Your task to perform on an android device: find photos in the google photos app Image 0: 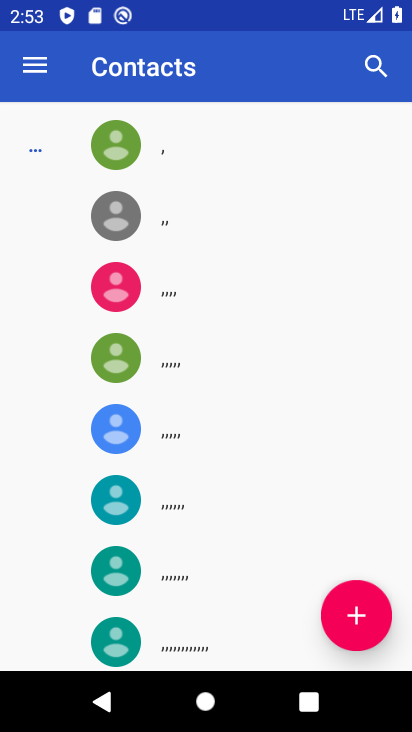
Step 0: press home button
Your task to perform on an android device: find photos in the google photos app Image 1: 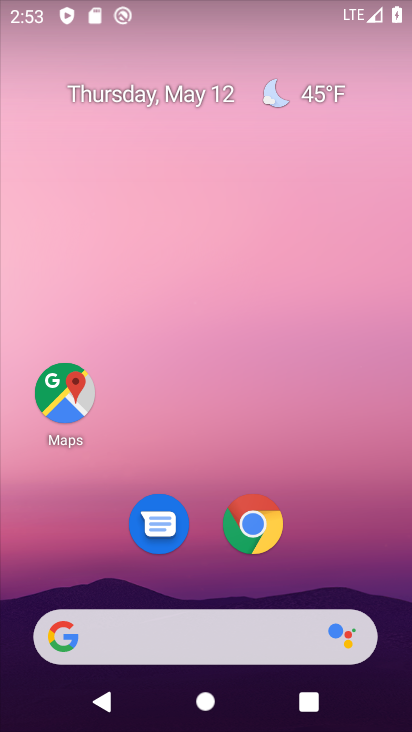
Step 1: drag from (198, 472) to (214, 29)
Your task to perform on an android device: find photos in the google photos app Image 2: 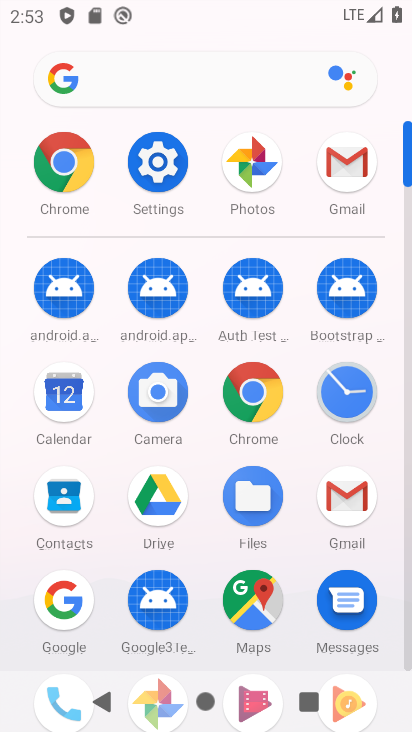
Step 2: click (251, 150)
Your task to perform on an android device: find photos in the google photos app Image 3: 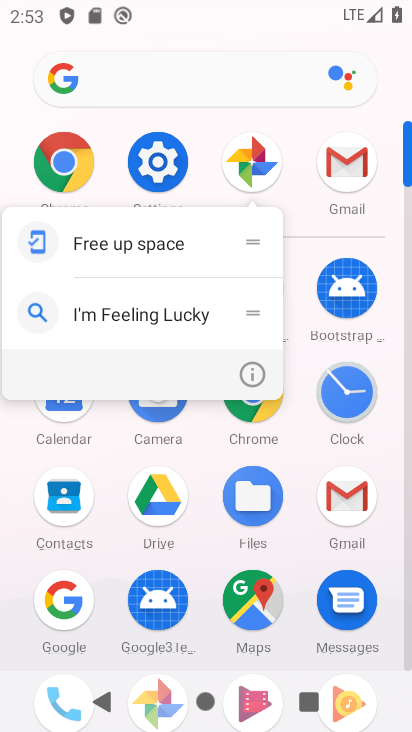
Step 3: click (251, 150)
Your task to perform on an android device: find photos in the google photos app Image 4: 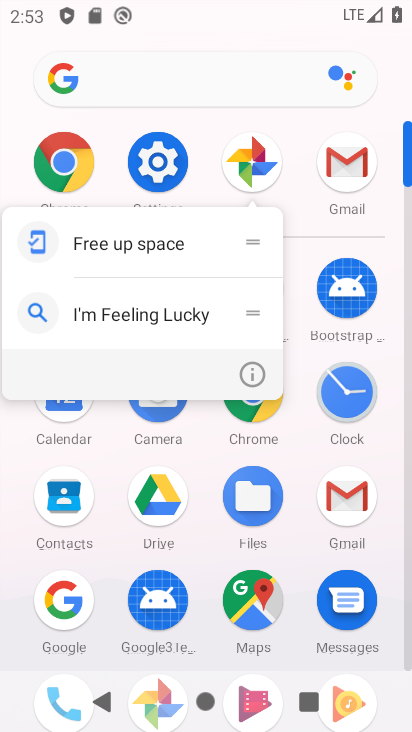
Step 4: click (251, 148)
Your task to perform on an android device: find photos in the google photos app Image 5: 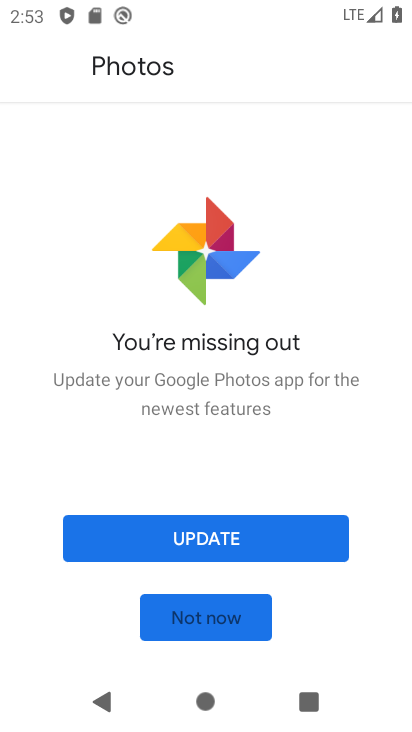
Step 5: click (212, 528)
Your task to perform on an android device: find photos in the google photos app Image 6: 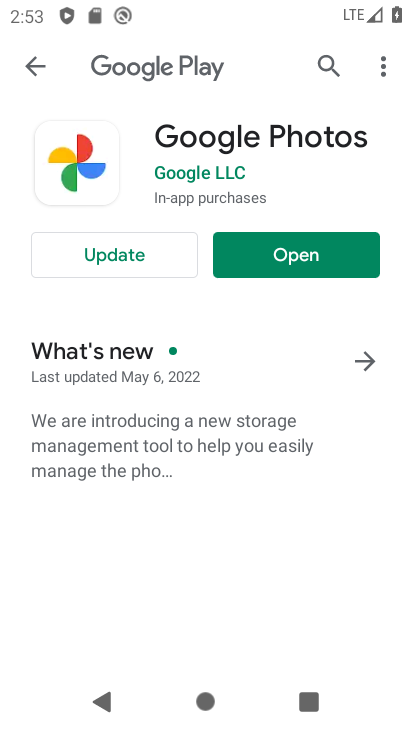
Step 6: click (266, 250)
Your task to perform on an android device: find photos in the google photos app Image 7: 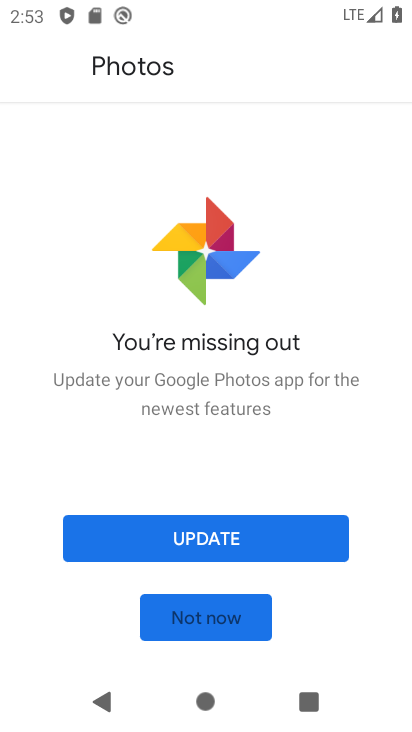
Step 7: click (249, 534)
Your task to perform on an android device: find photos in the google photos app Image 8: 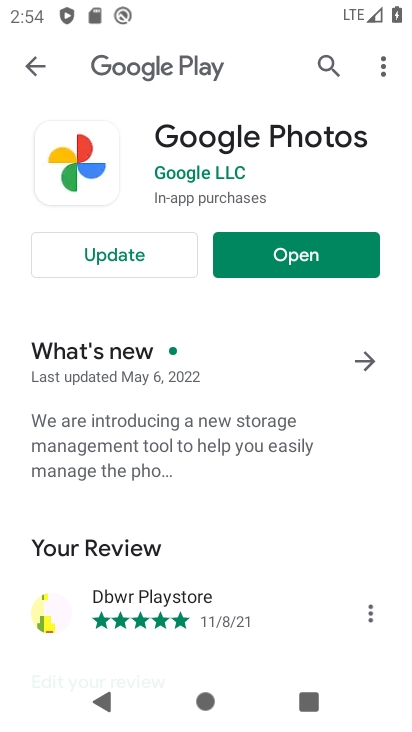
Step 8: click (237, 251)
Your task to perform on an android device: find photos in the google photos app Image 9: 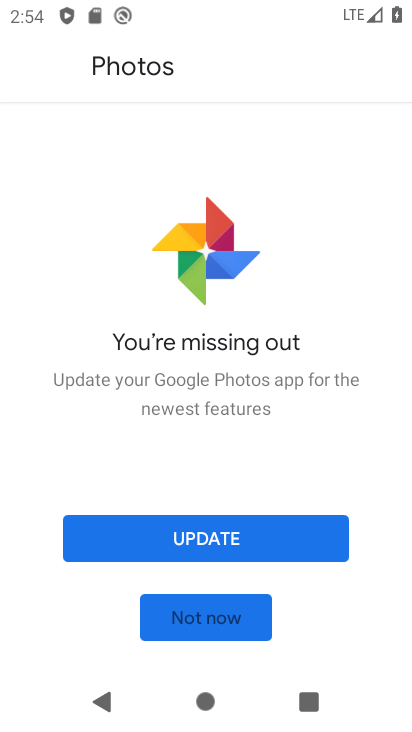
Step 9: click (220, 528)
Your task to perform on an android device: find photos in the google photos app Image 10: 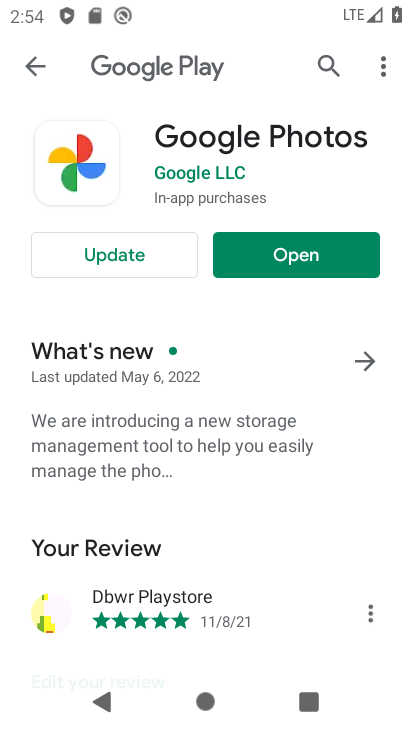
Step 10: click (259, 254)
Your task to perform on an android device: find photos in the google photos app Image 11: 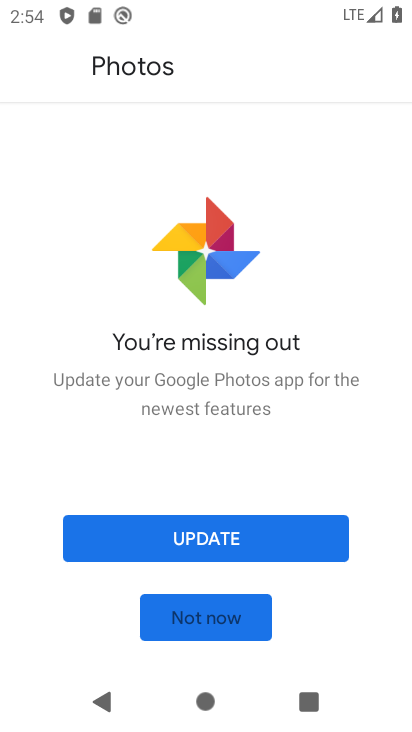
Step 11: click (221, 614)
Your task to perform on an android device: find photos in the google photos app Image 12: 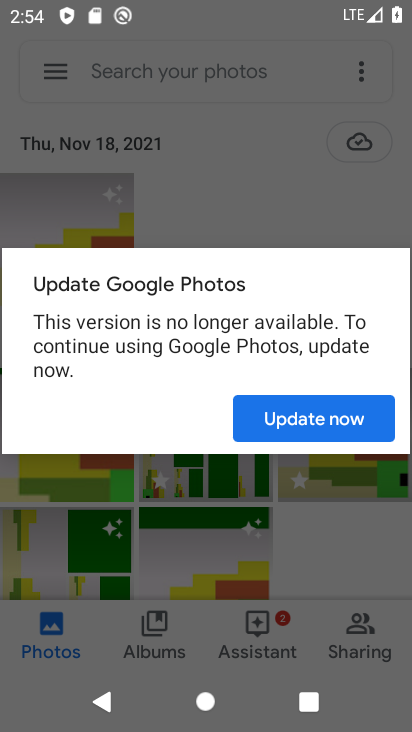
Step 12: click (284, 416)
Your task to perform on an android device: find photos in the google photos app Image 13: 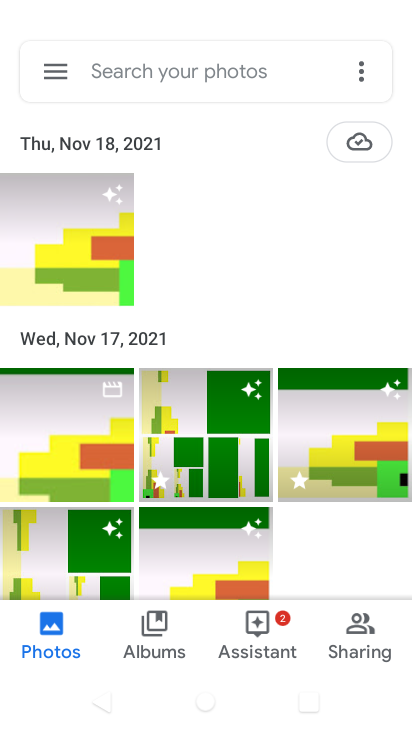
Step 13: click (284, 415)
Your task to perform on an android device: find photos in the google photos app Image 14: 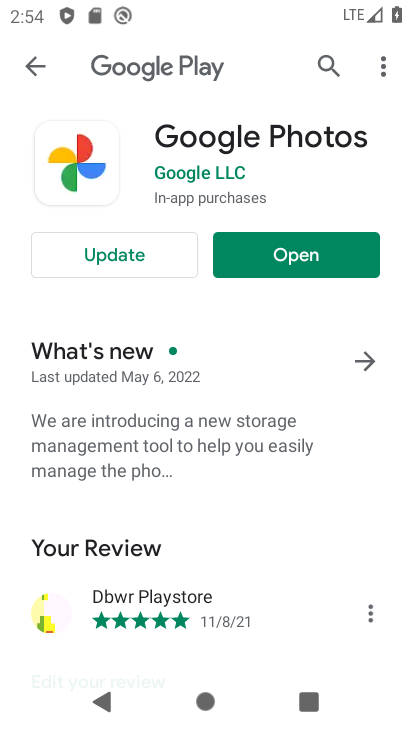
Step 14: click (277, 243)
Your task to perform on an android device: find photos in the google photos app Image 15: 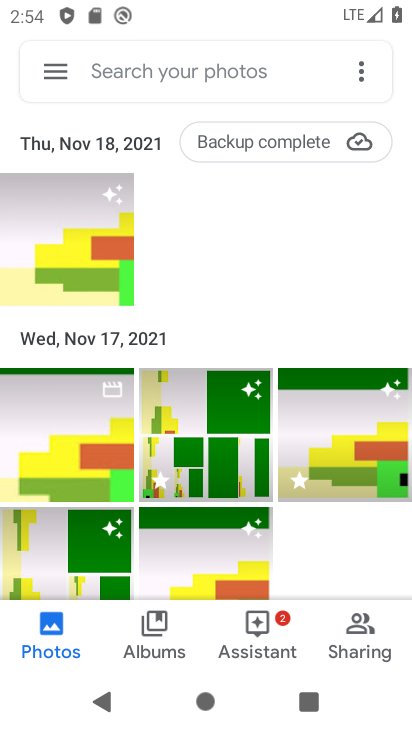
Step 15: click (62, 67)
Your task to perform on an android device: find photos in the google photos app Image 16: 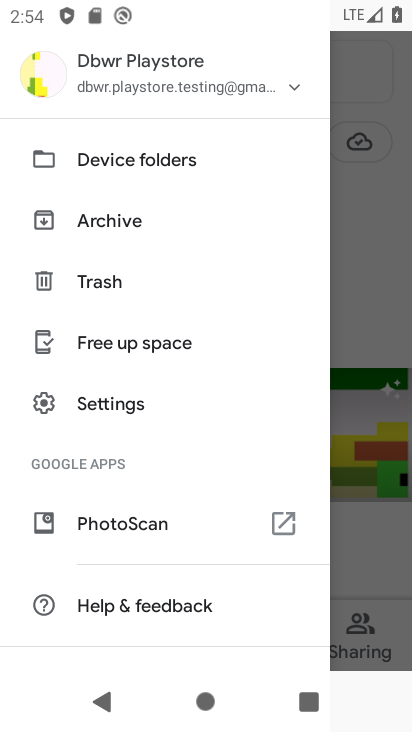
Step 16: click (359, 303)
Your task to perform on an android device: find photos in the google photos app Image 17: 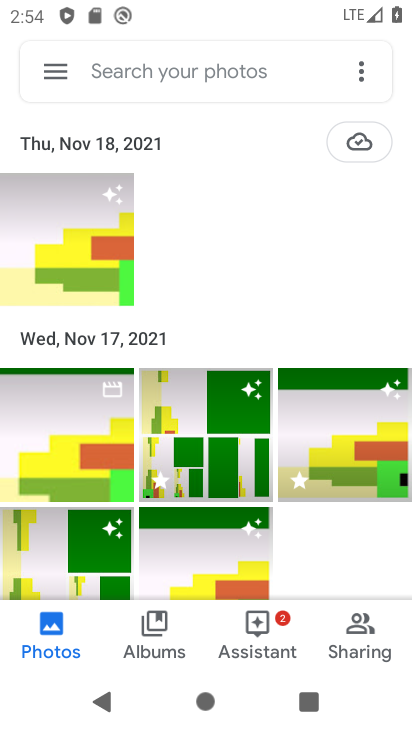
Step 17: click (105, 248)
Your task to perform on an android device: find photos in the google photos app Image 18: 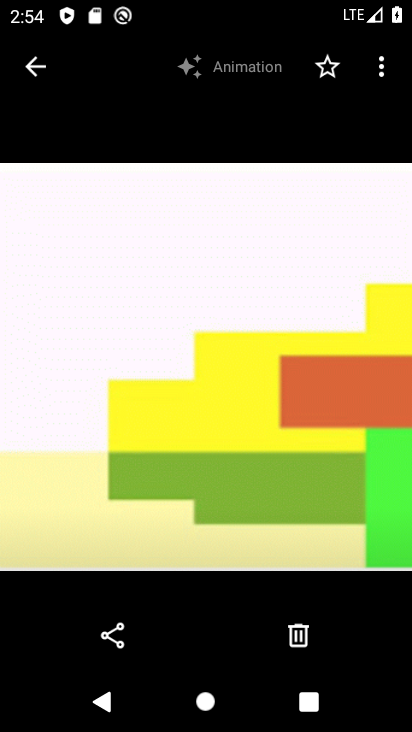
Step 18: click (38, 69)
Your task to perform on an android device: find photos in the google photos app Image 19: 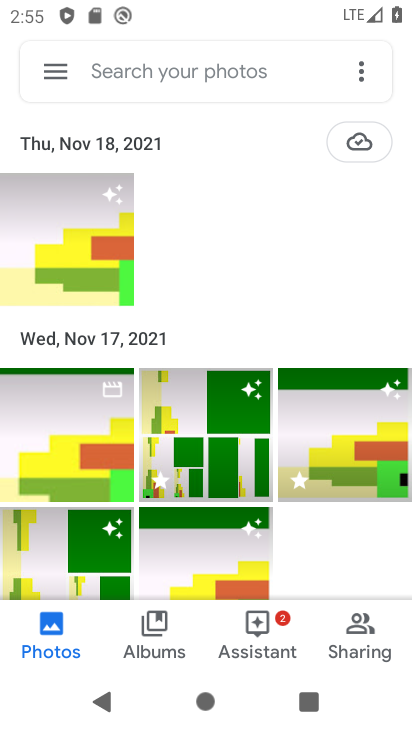
Step 19: task complete